Your task to perform on an android device: Go to Wikipedia Image 0: 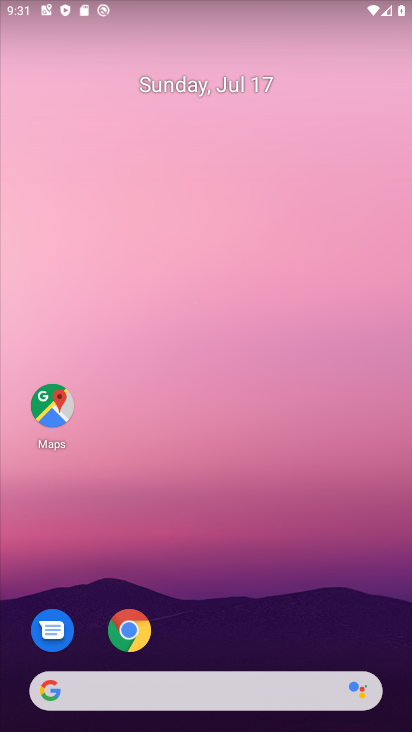
Step 0: drag from (347, 672) to (340, 75)
Your task to perform on an android device: Go to Wikipedia Image 1: 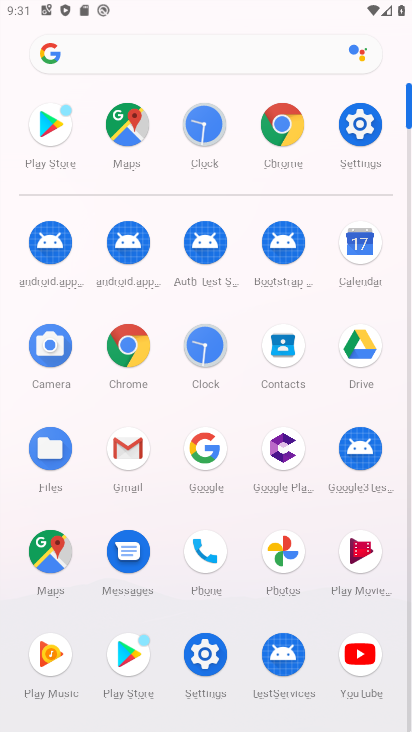
Step 1: click (121, 352)
Your task to perform on an android device: Go to Wikipedia Image 2: 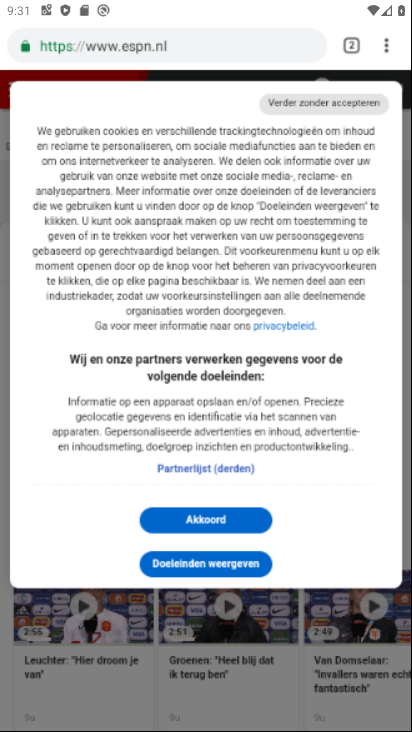
Step 2: click (172, 40)
Your task to perform on an android device: Go to Wikipedia Image 3: 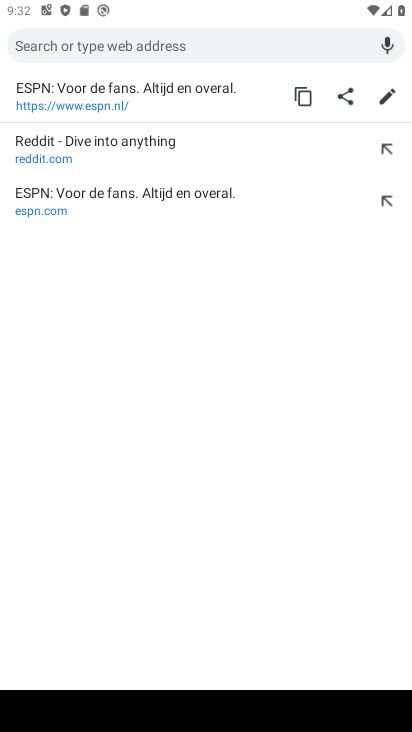
Step 3: type "wikipedia"
Your task to perform on an android device: Go to Wikipedia Image 4: 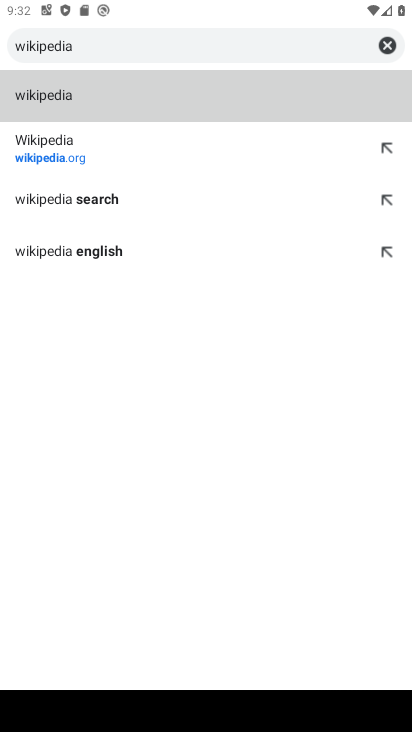
Step 4: click (65, 97)
Your task to perform on an android device: Go to Wikipedia Image 5: 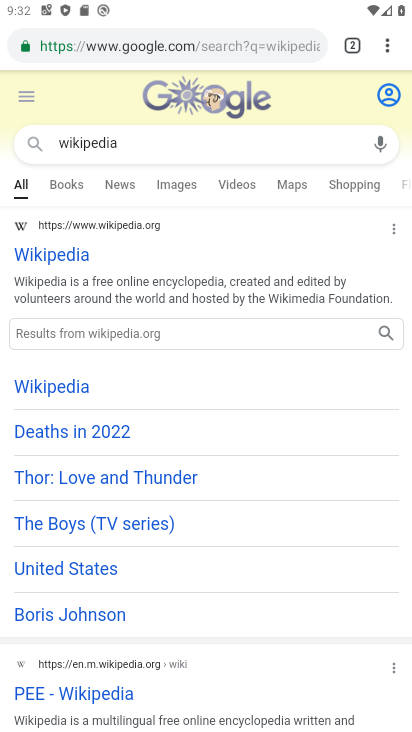
Step 5: task complete